Your task to perform on an android device: Go to CNN.com Image 0: 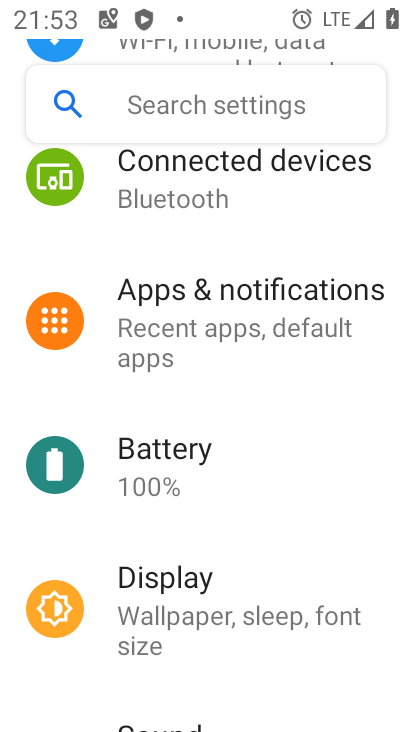
Step 0: press home button
Your task to perform on an android device: Go to CNN.com Image 1: 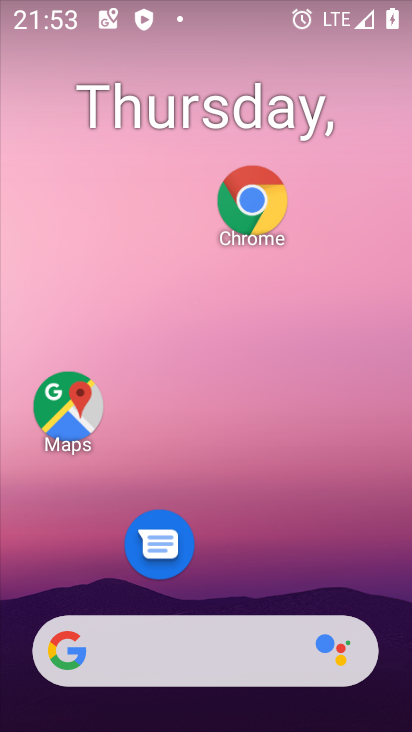
Step 1: click (161, 668)
Your task to perform on an android device: Go to CNN.com Image 2: 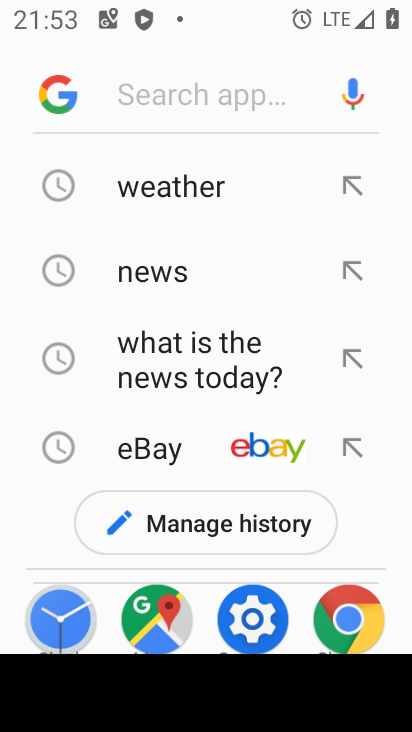
Step 2: type "cnn.com"
Your task to perform on an android device: Go to CNN.com Image 3: 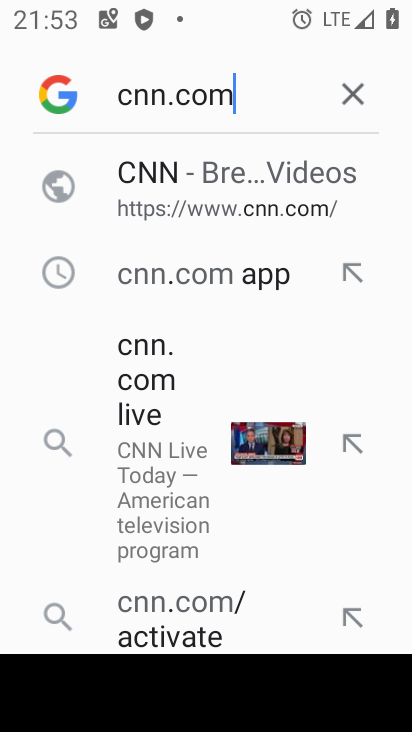
Step 3: click (196, 214)
Your task to perform on an android device: Go to CNN.com Image 4: 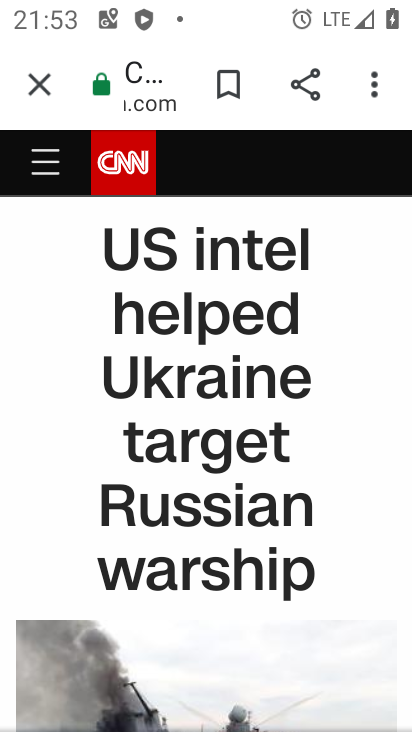
Step 4: task complete